Your task to perform on an android device: toggle location history Image 0: 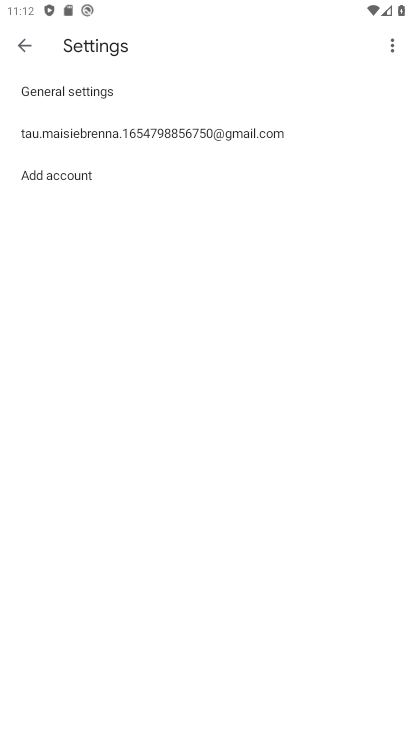
Step 0: press home button
Your task to perform on an android device: toggle location history Image 1: 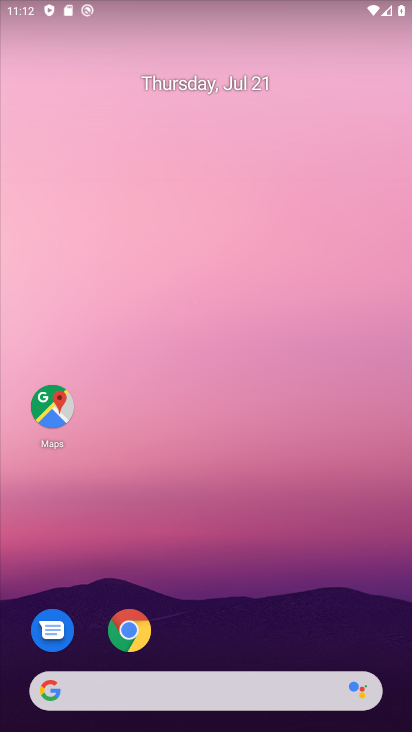
Step 1: drag from (249, 668) to (234, 40)
Your task to perform on an android device: toggle location history Image 2: 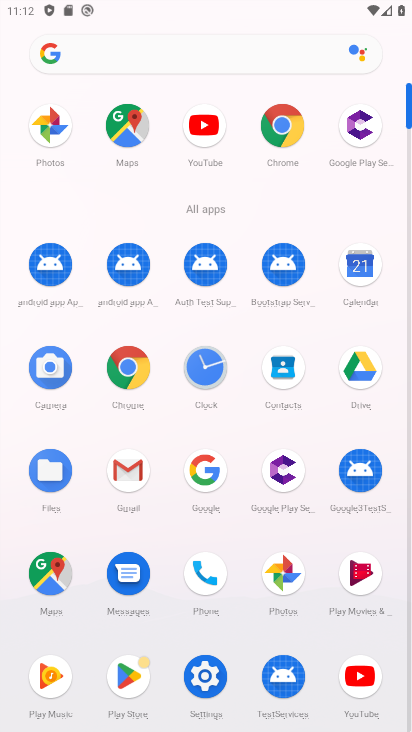
Step 2: click (204, 666)
Your task to perform on an android device: toggle location history Image 3: 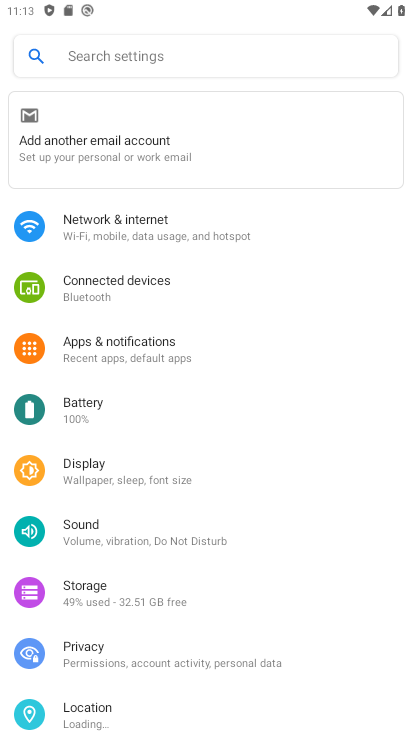
Step 3: click (60, 705)
Your task to perform on an android device: toggle location history Image 4: 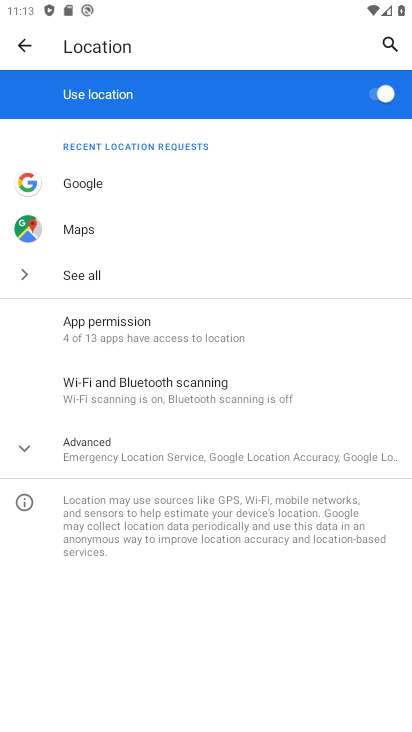
Step 4: click (101, 441)
Your task to perform on an android device: toggle location history Image 5: 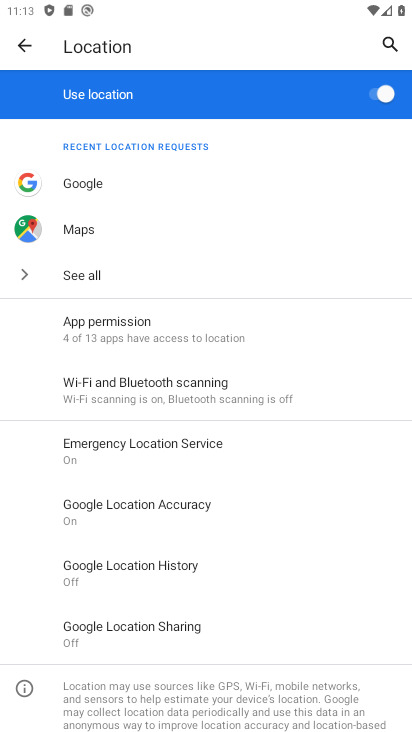
Step 5: click (187, 566)
Your task to perform on an android device: toggle location history Image 6: 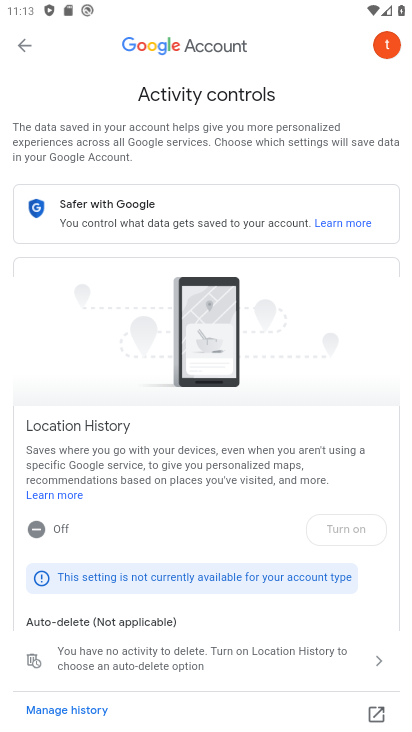
Step 6: task complete